Your task to perform on an android device: turn off translation in the chrome app Image 0: 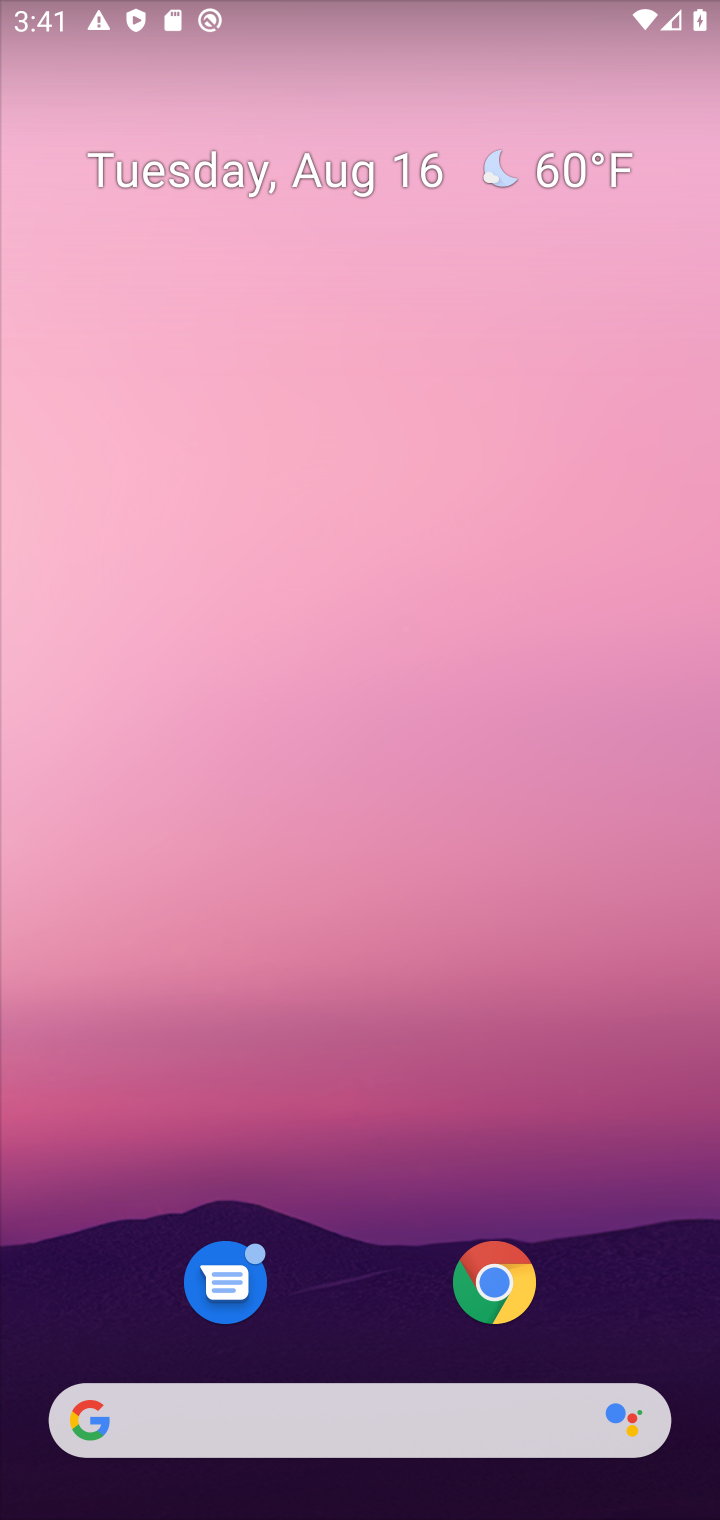
Step 0: press back button
Your task to perform on an android device: turn off translation in the chrome app Image 1: 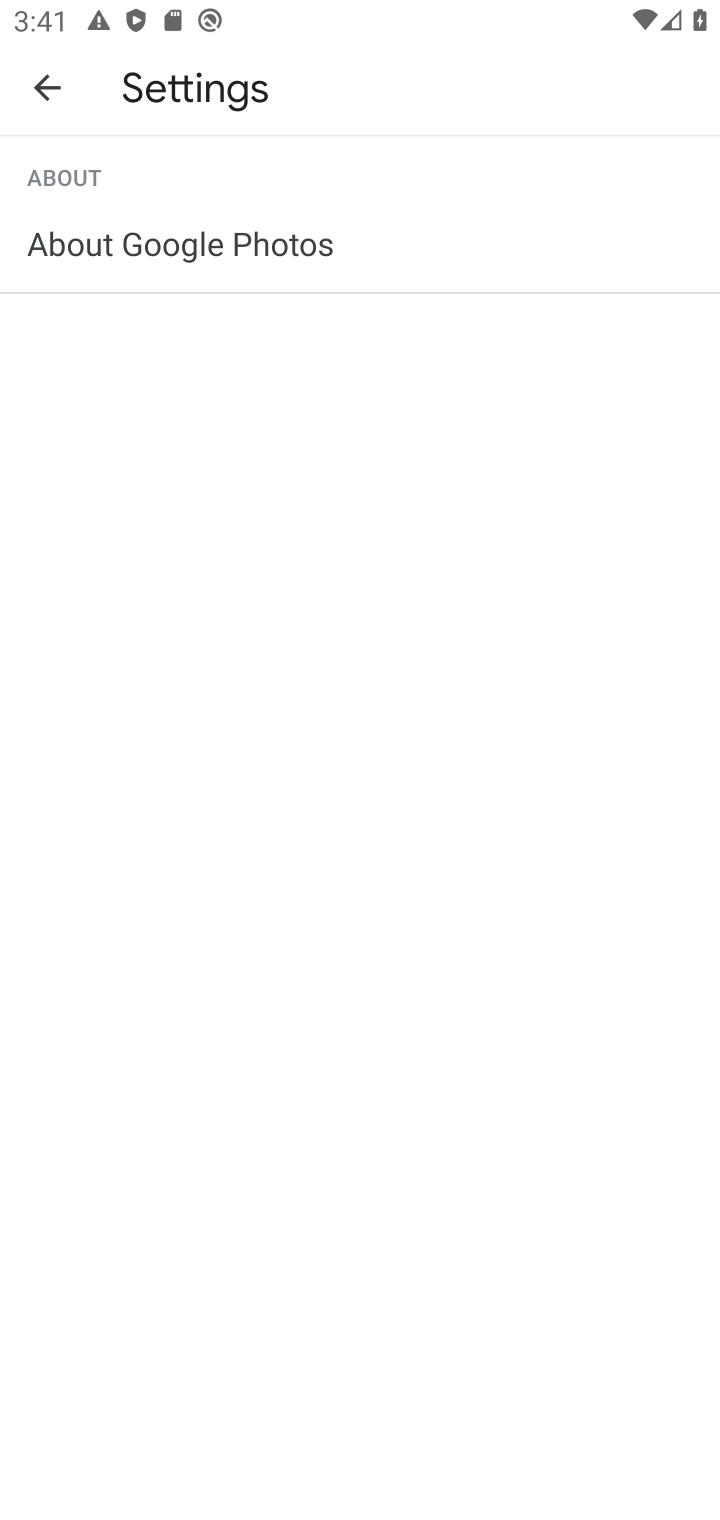
Step 1: drag from (369, 1351) to (395, 0)
Your task to perform on an android device: turn off translation in the chrome app Image 2: 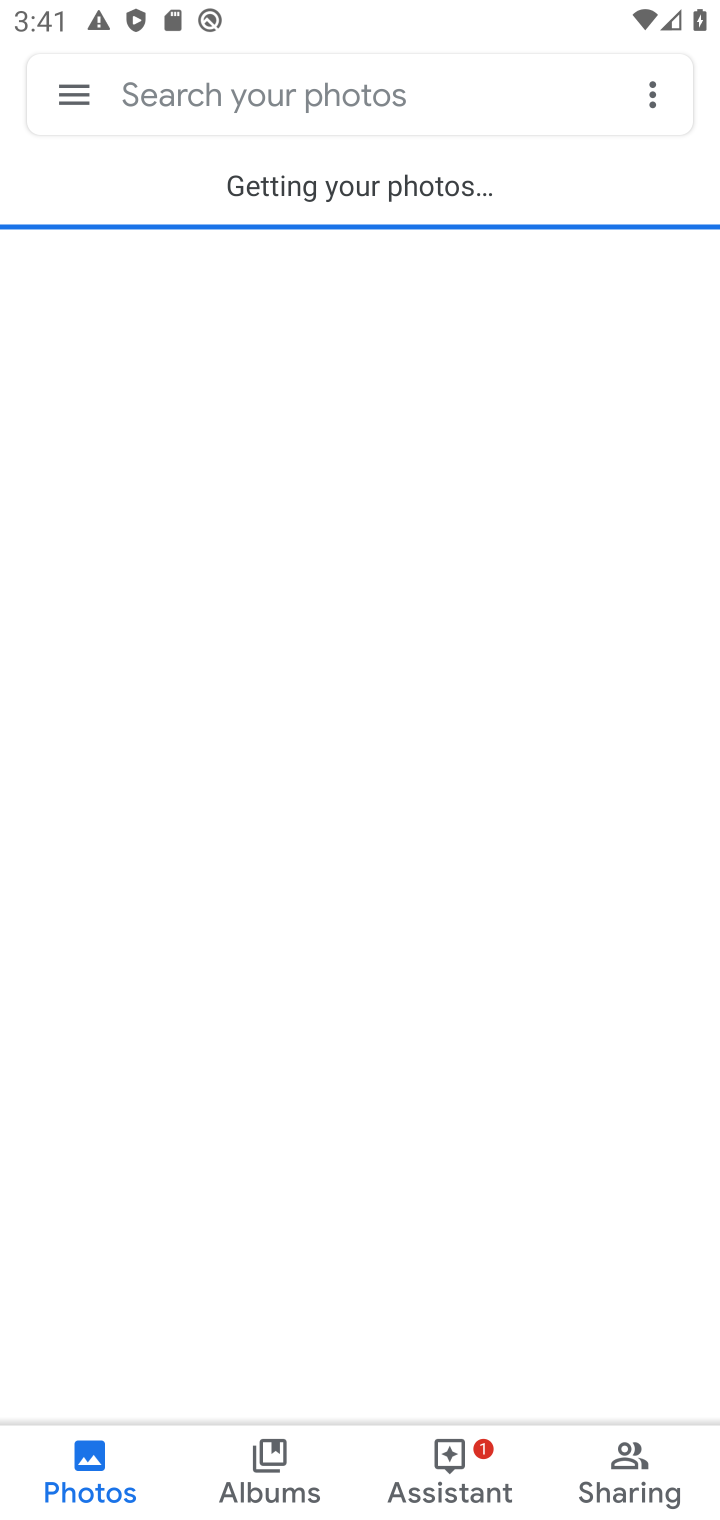
Step 2: press back button
Your task to perform on an android device: turn off translation in the chrome app Image 3: 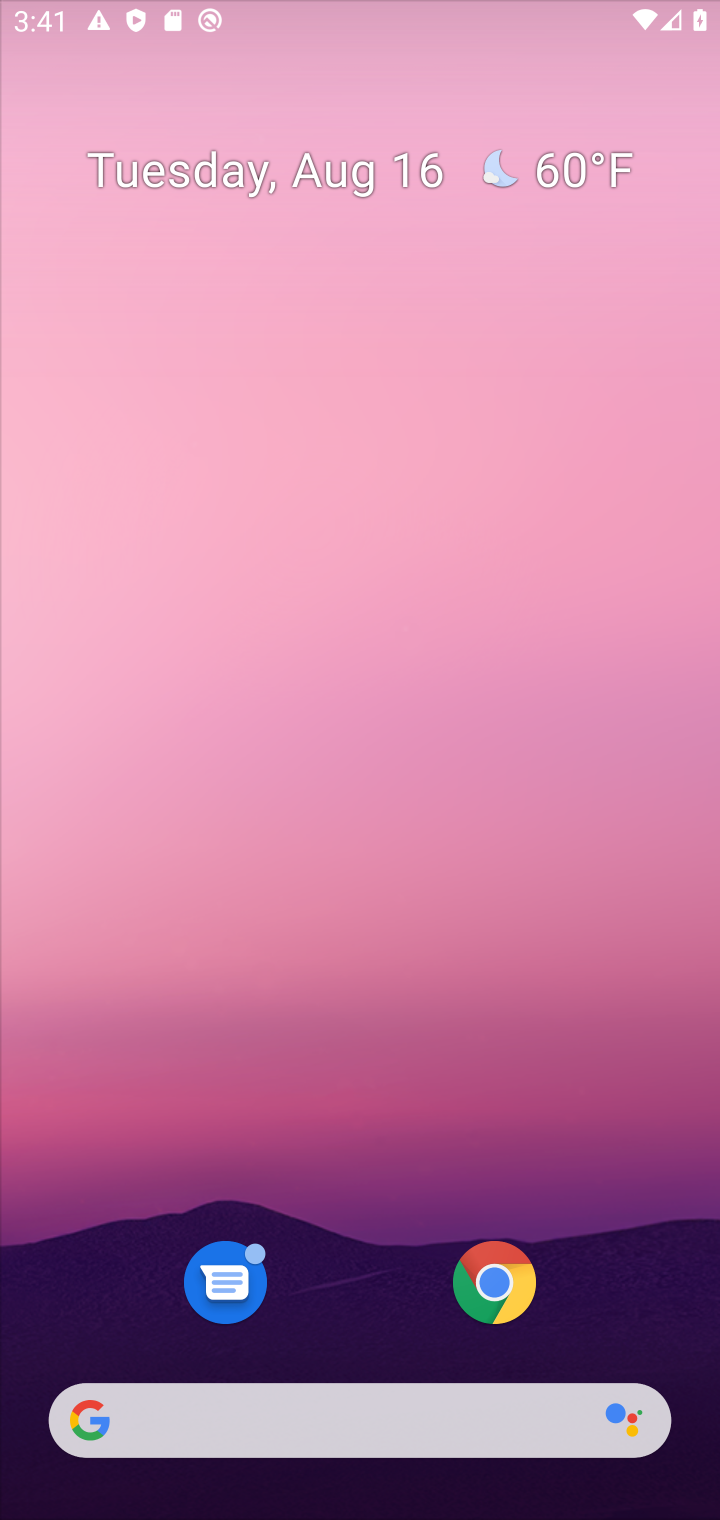
Step 3: click (504, 1284)
Your task to perform on an android device: turn off translation in the chrome app Image 4: 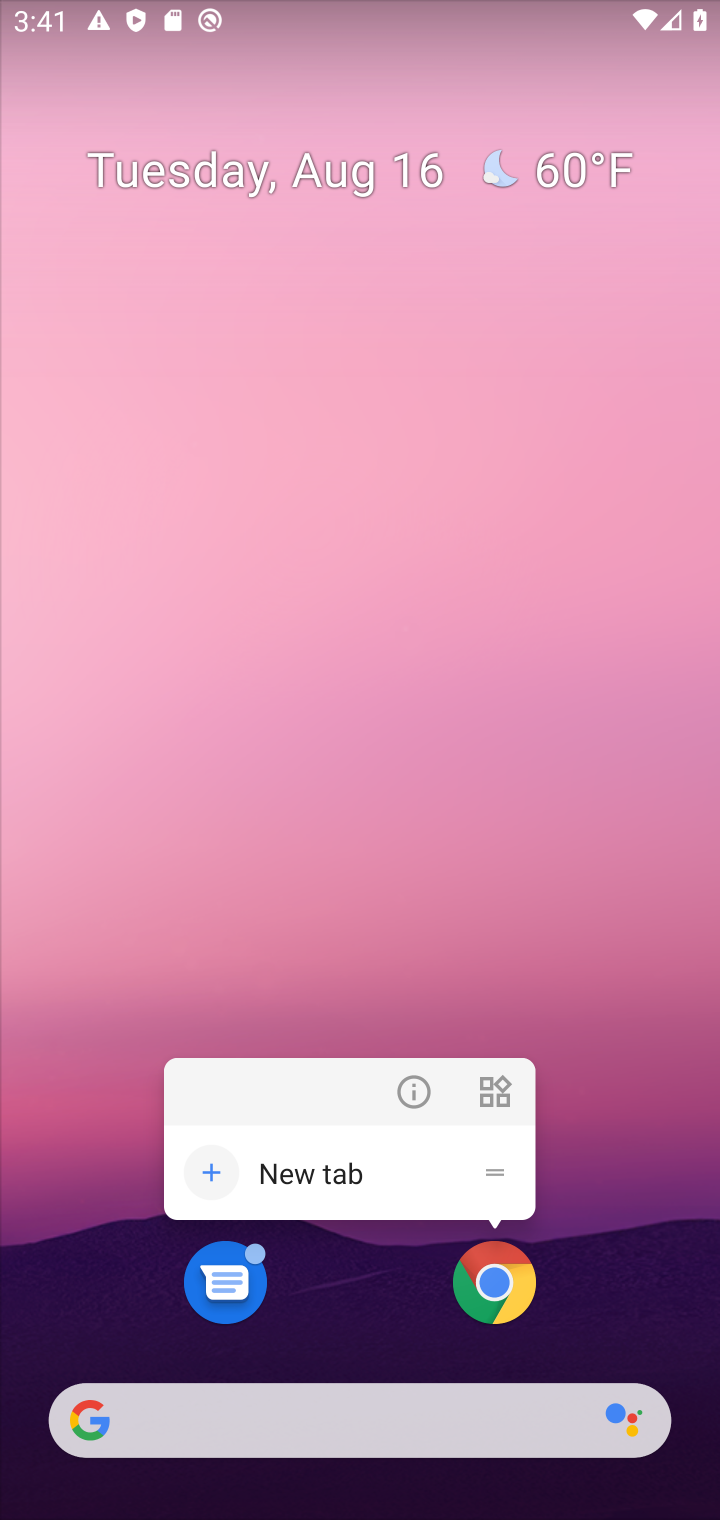
Step 4: click (500, 1286)
Your task to perform on an android device: turn off translation in the chrome app Image 5: 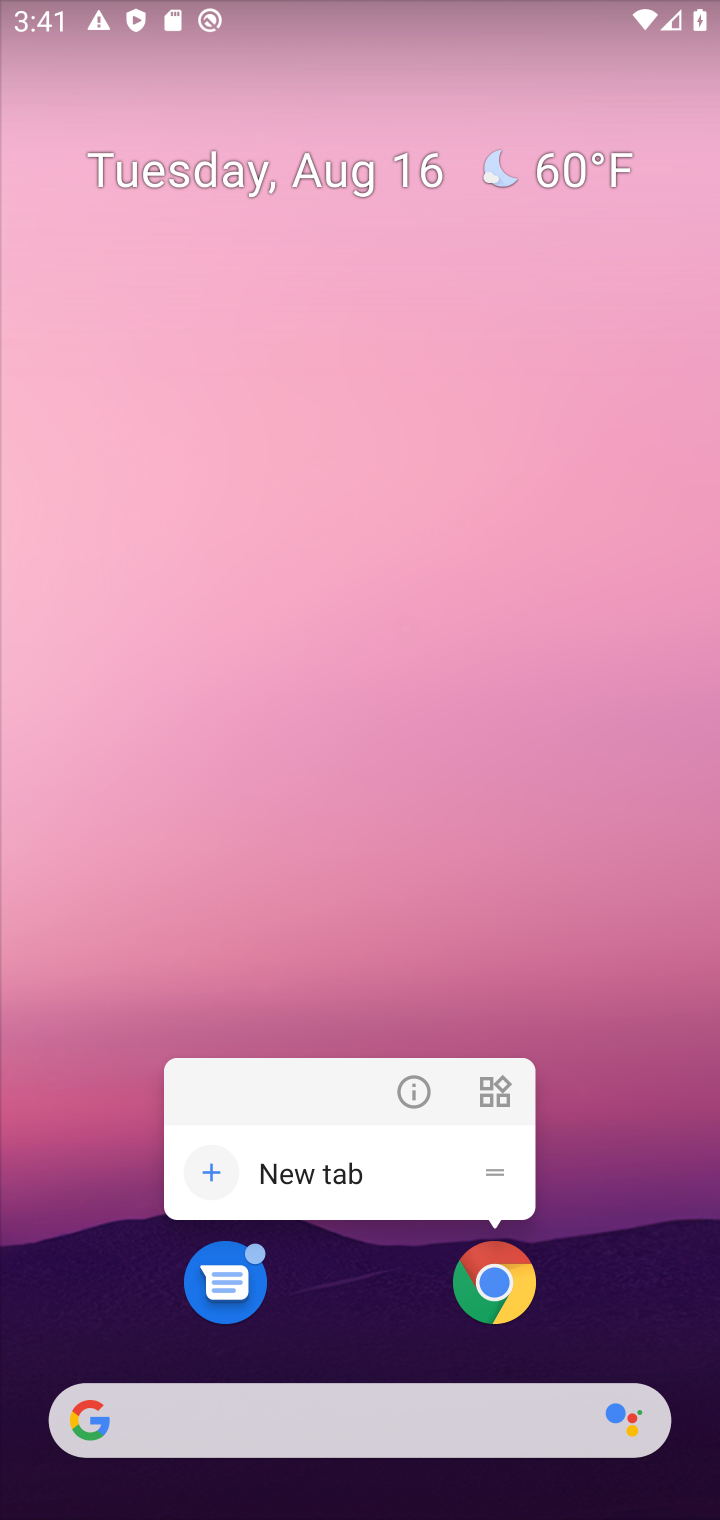
Step 5: click (496, 1288)
Your task to perform on an android device: turn off translation in the chrome app Image 6: 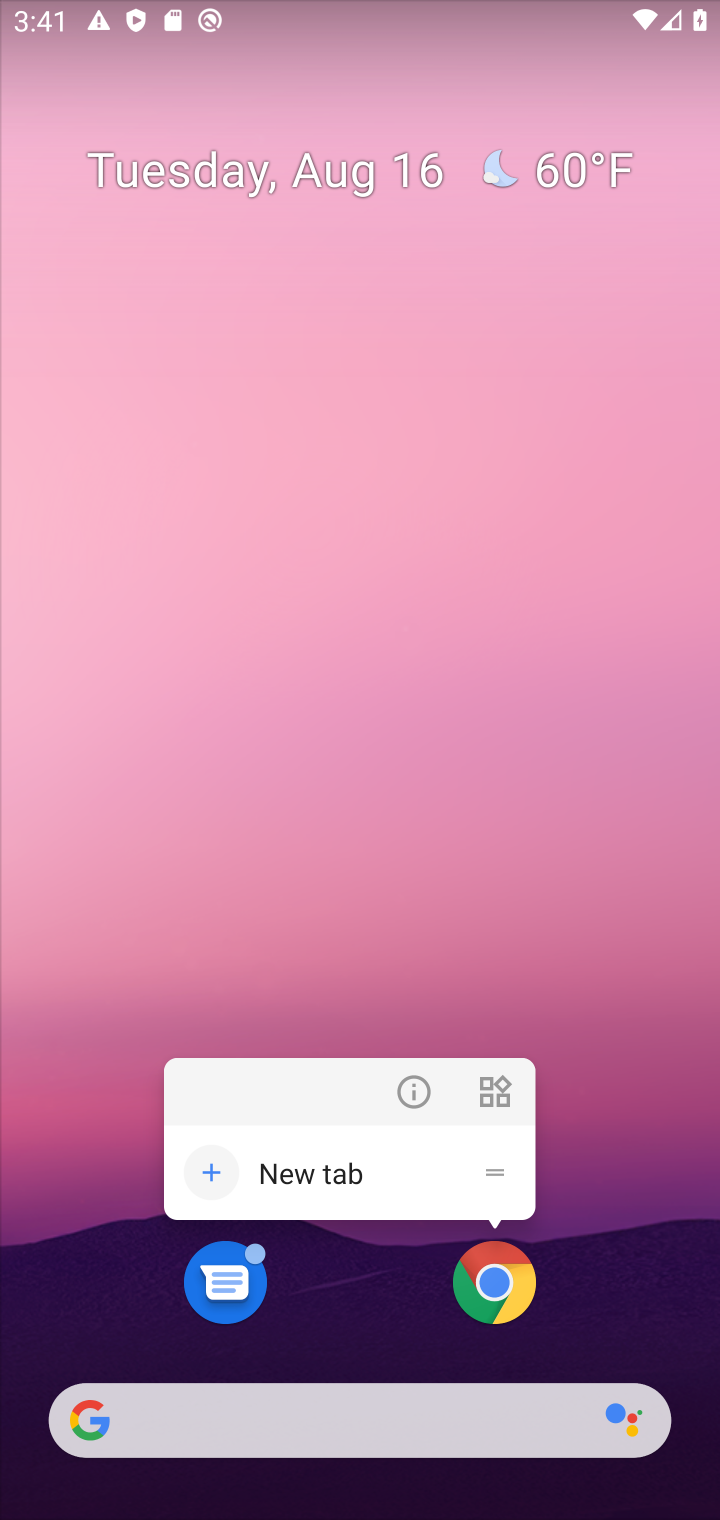
Step 6: click (489, 1273)
Your task to perform on an android device: turn off translation in the chrome app Image 7: 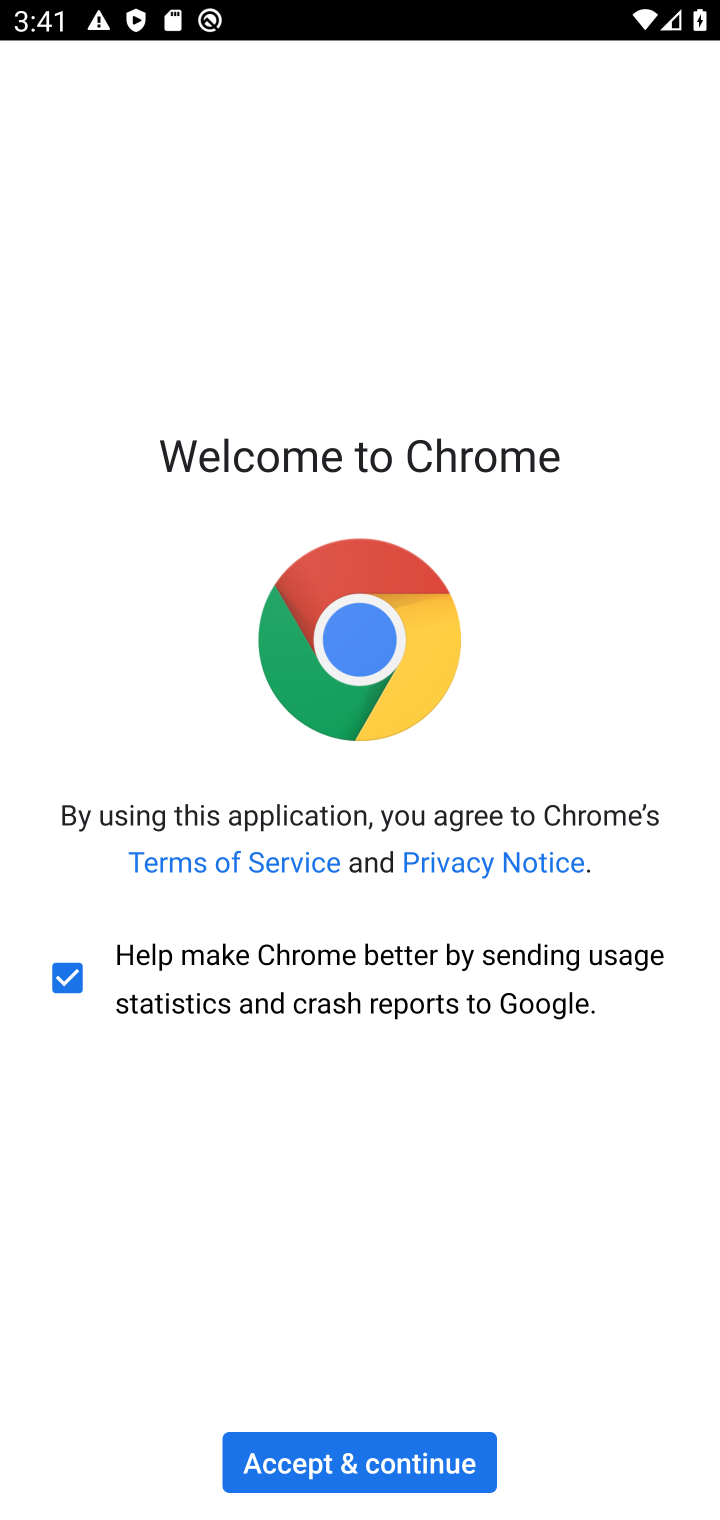
Step 7: click (427, 1471)
Your task to perform on an android device: turn off translation in the chrome app Image 8: 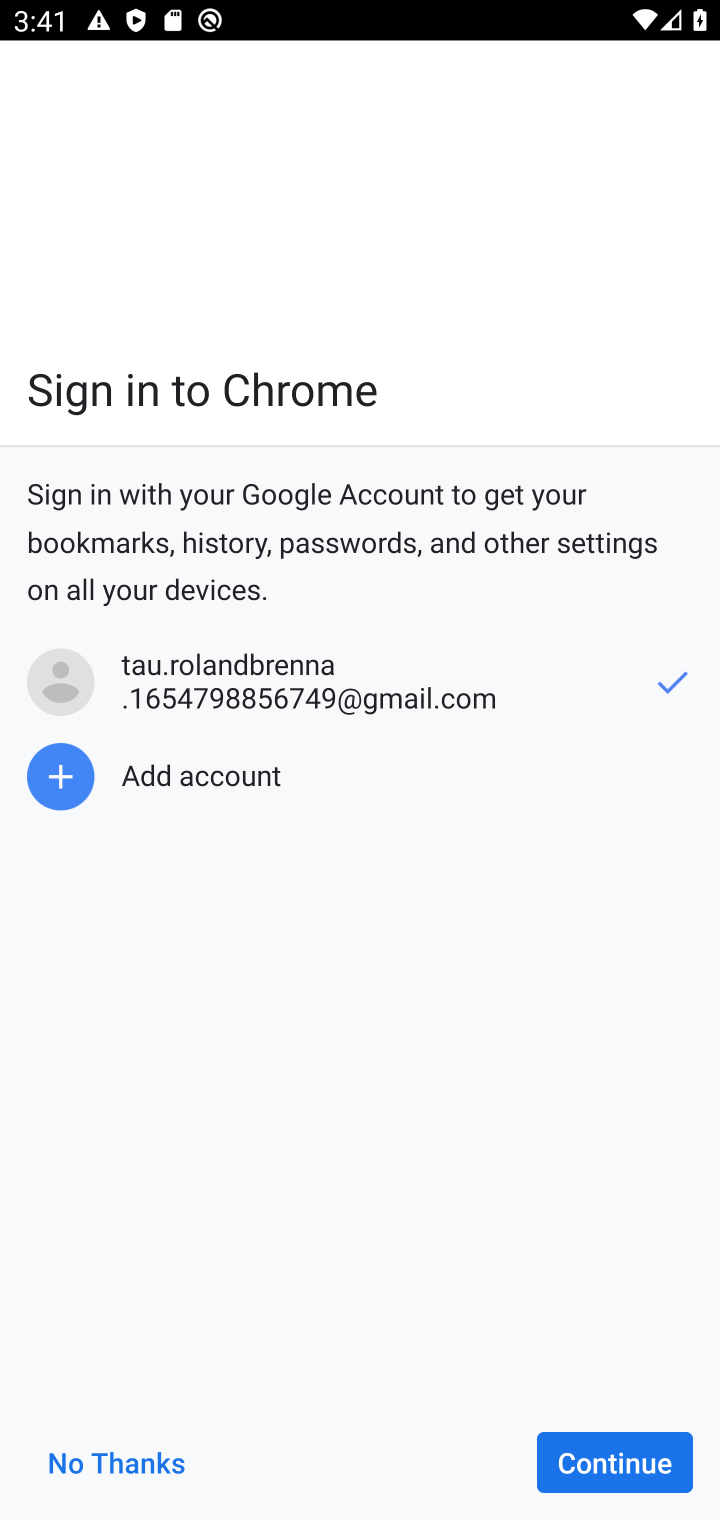
Step 8: click (618, 1446)
Your task to perform on an android device: turn off translation in the chrome app Image 9: 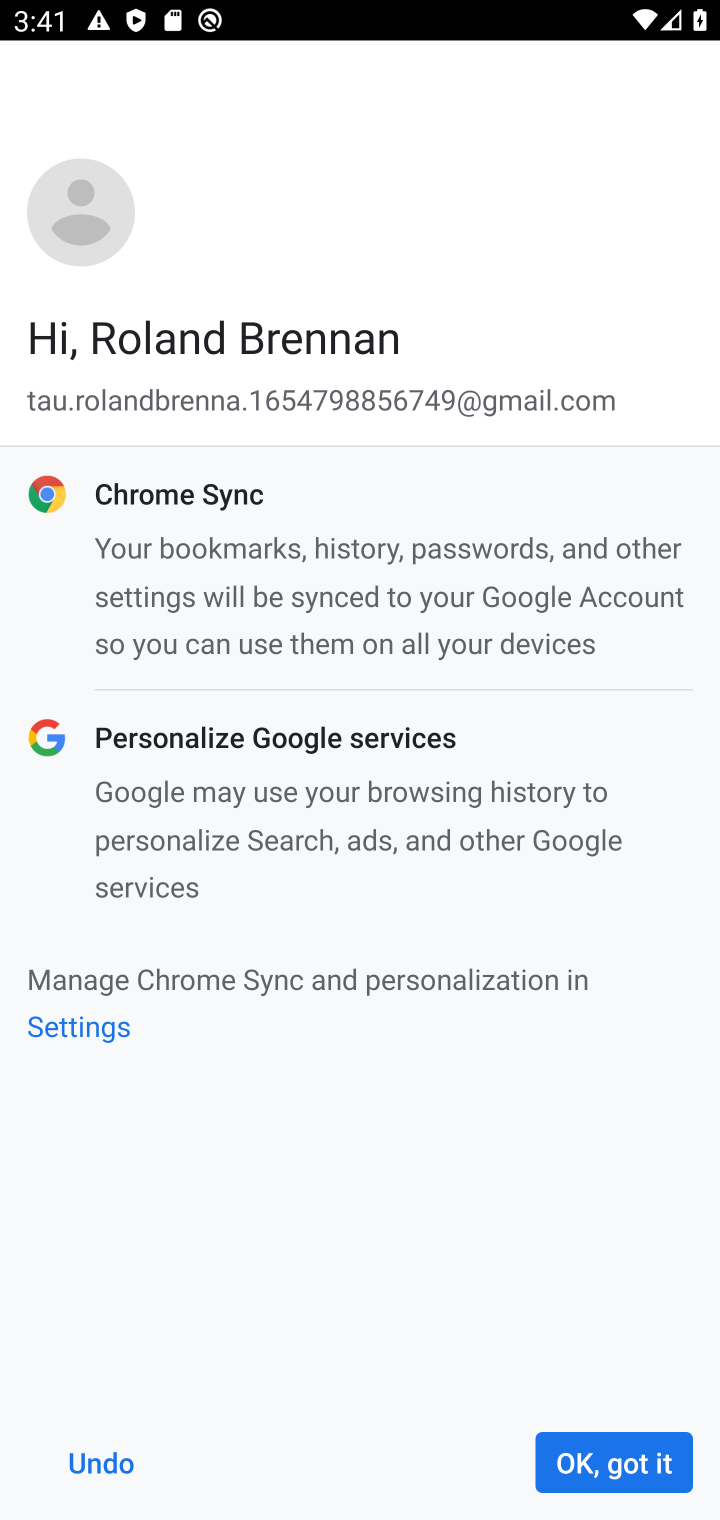
Step 9: click (653, 1443)
Your task to perform on an android device: turn off translation in the chrome app Image 10: 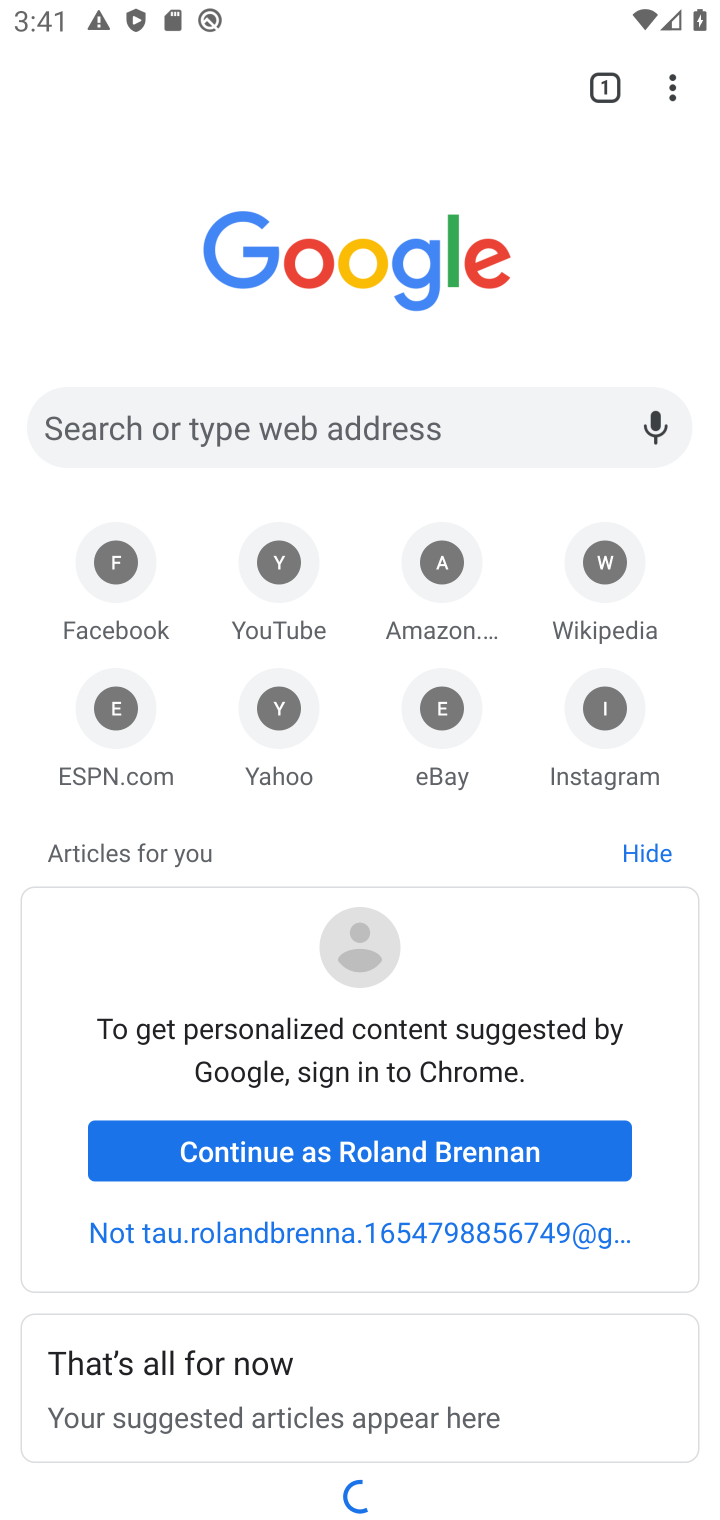
Step 10: drag from (680, 94) to (411, 739)
Your task to perform on an android device: turn off translation in the chrome app Image 11: 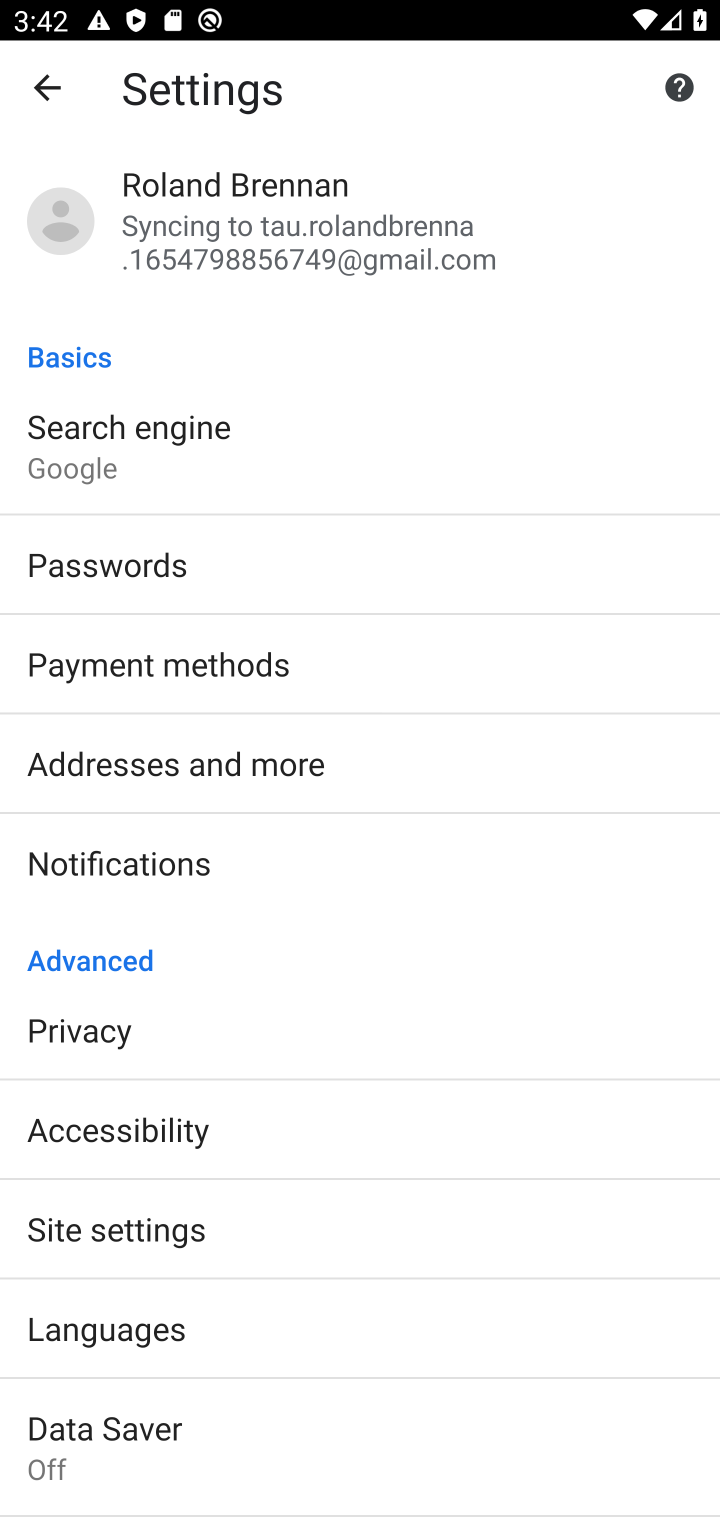
Step 11: click (110, 1316)
Your task to perform on an android device: turn off translation in the chrome app Image 12: 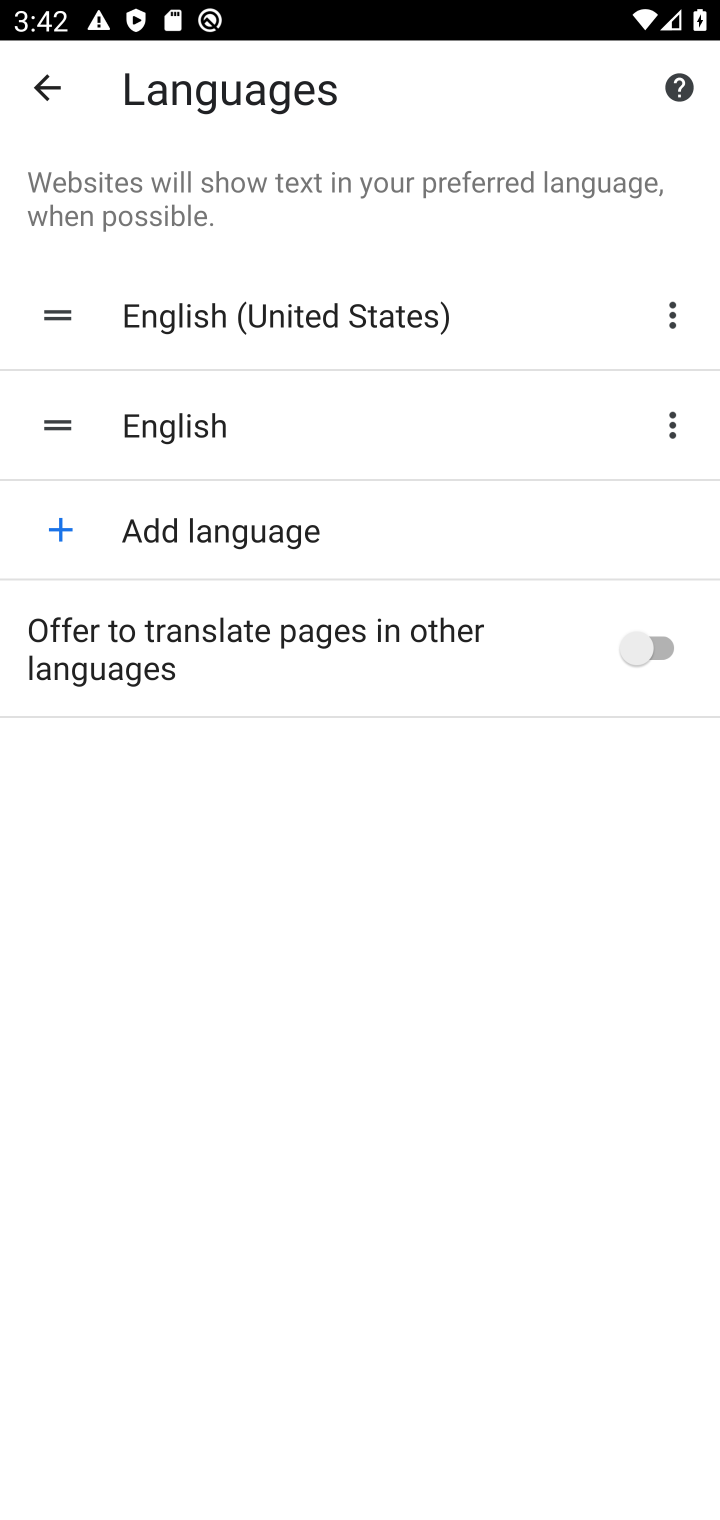
Step 12: task complete